Your task to perform on an android device: Go to privacy settings Image 0: 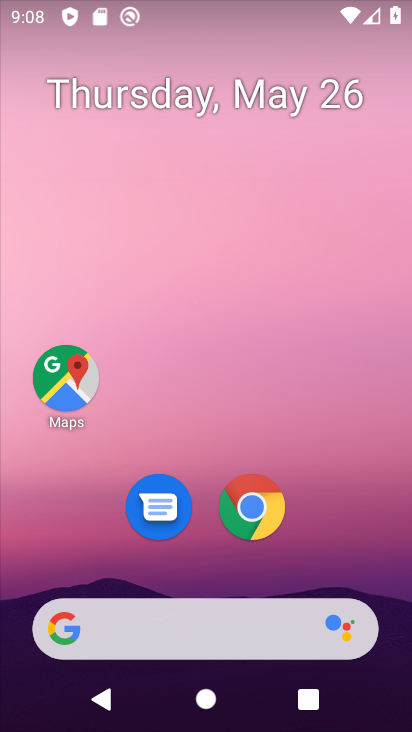
Step 0: drag from (391, 596) to (386, 216)
Your task to perform on an android device: Go to privacy settings Image 1: 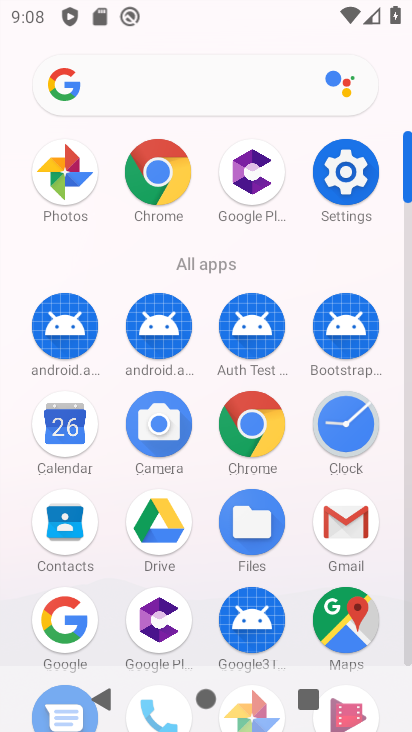
Step 1: click (343, 169)
Your task to perform on an android device: Go to privacy settings Image 2: 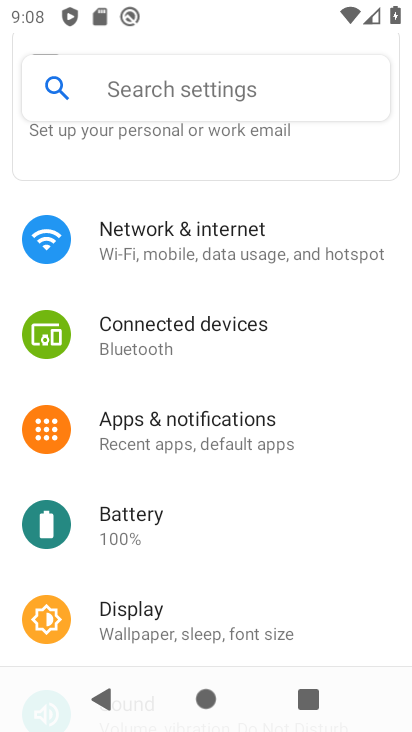
Step 2: drag from (374, 511) to (350, 359)
Your task to perform on an android device: Go to privacy settings Image 3: 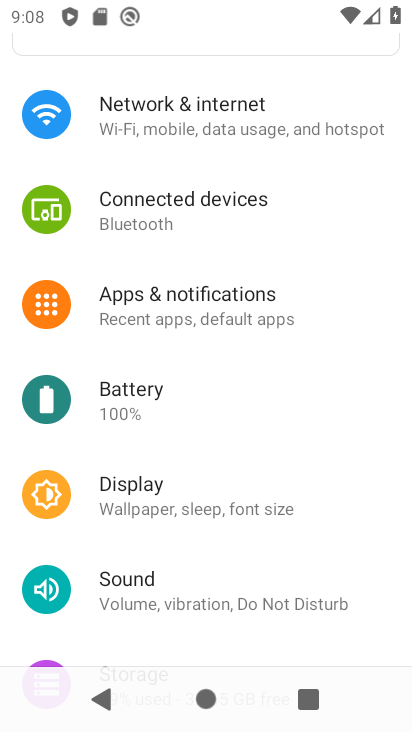
Step 3: drag from (369, 508) to (361, 362)
Your task to perform on an android device: Go to privacy settings Image 4: 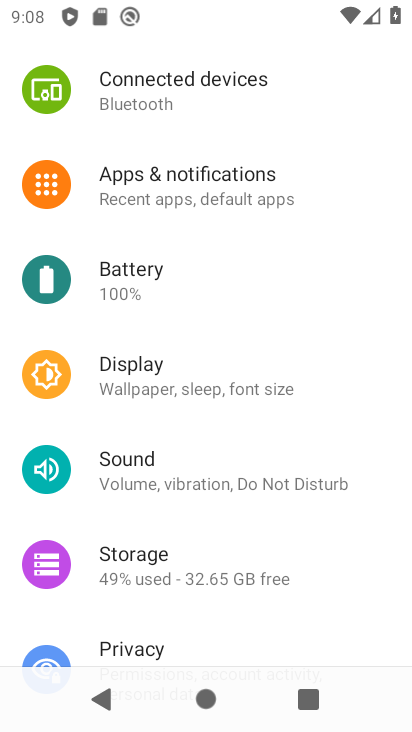
Step 4: drag from (356, 590) to (352, 434)
Your task to perform on an android device: Go to privacy settings Image 5: 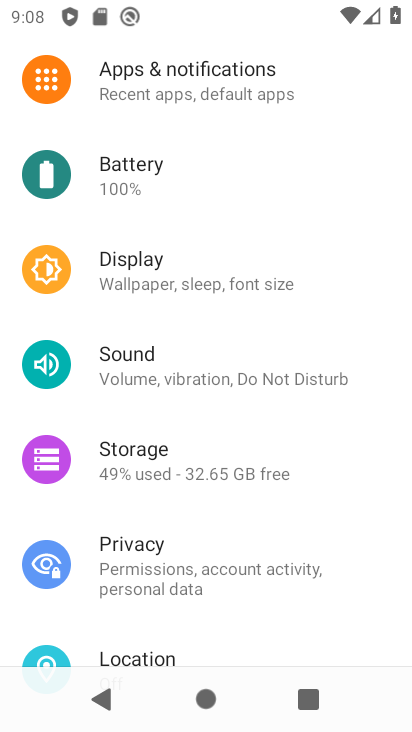
Step 5: drag from (359, 574) to (364, 432)
Your task to perform on an android device: Go to privacy settings Image 6: 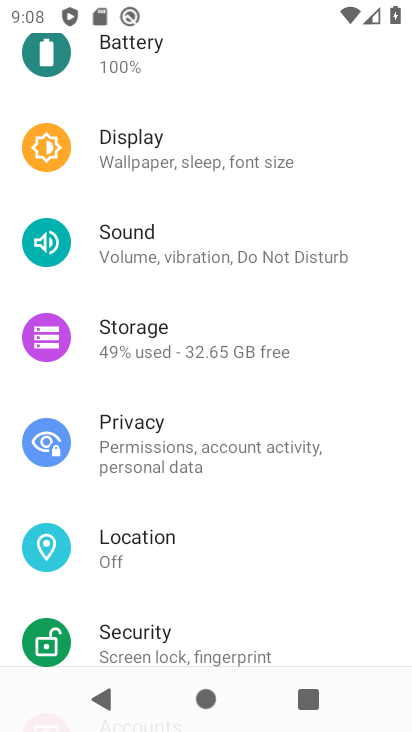
Step 6: drag from (372, 557) to (372, 432)
Your task to perform on an android device: Go to privacy settings Image 7: 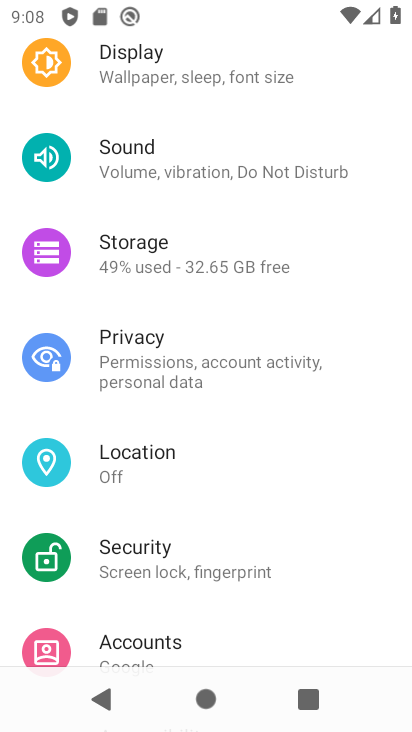
Step 7: drag from (371, 571) to (370, 411)
Your task to perform on an android device: Go to privacy settings Image 8: 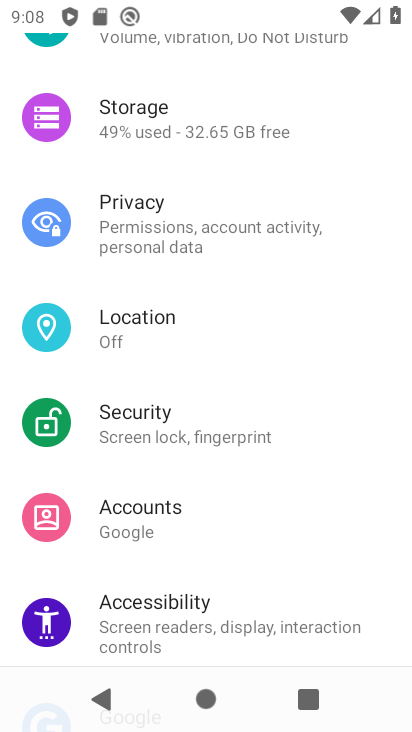
Step 8: drag from (365, 546) to (357, 368)
Your task to perform on an android device: Go to privacy settings Image 9: 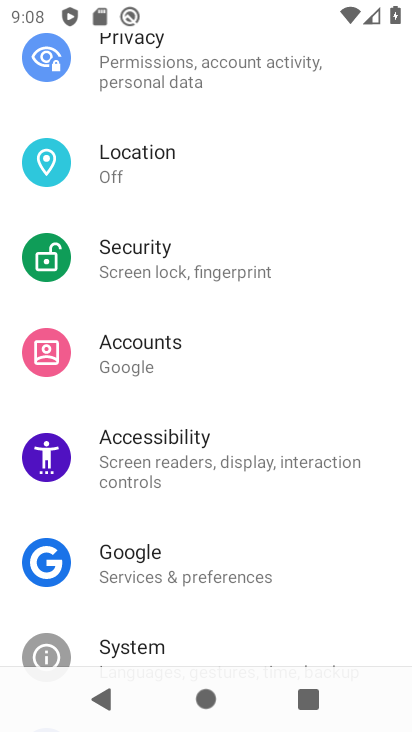
Step 9: drag from (351, 585) to (348, 470)
Your task to perform on an android device: Go to privacy settings Image 10: 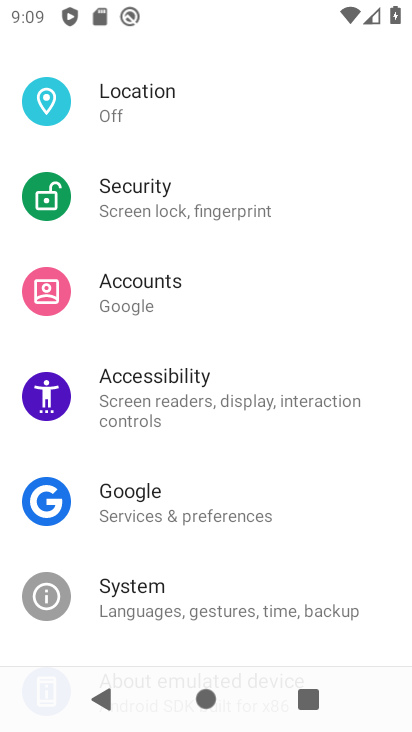
Step 10: drag from (339, 288) to (345, 458)
Your task to perform on an android device: Go to privacy settings Image 11: 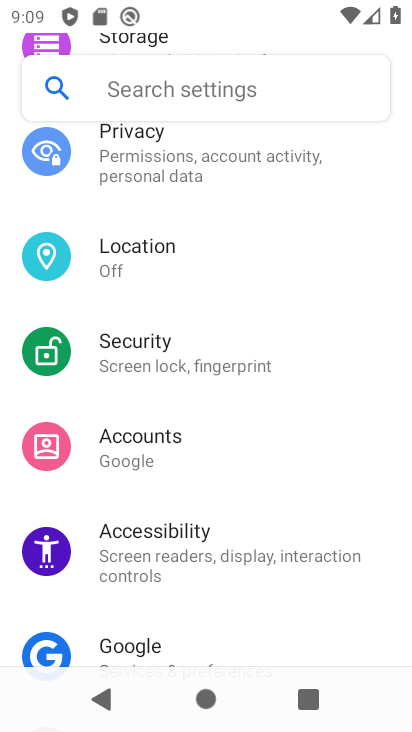
Step 11: drag from (333, 352) to (349, 473)
Your task to perform on an android device: Go to privacy settings Image 12: 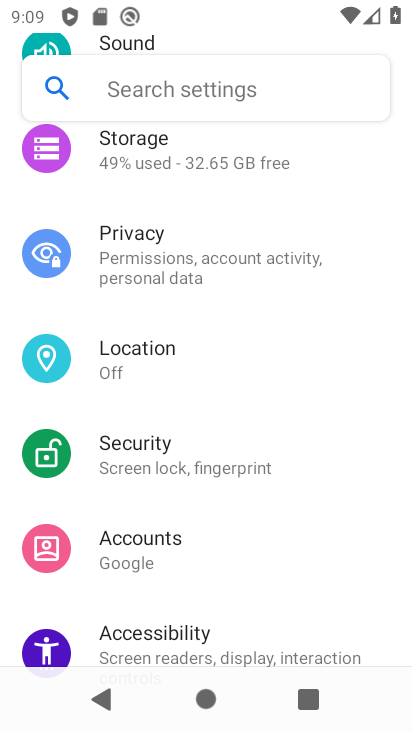
Step 12: drag from (334, 324) to (340, 461)
Your task to perform on an android device: Go to privacy settings Image 13: 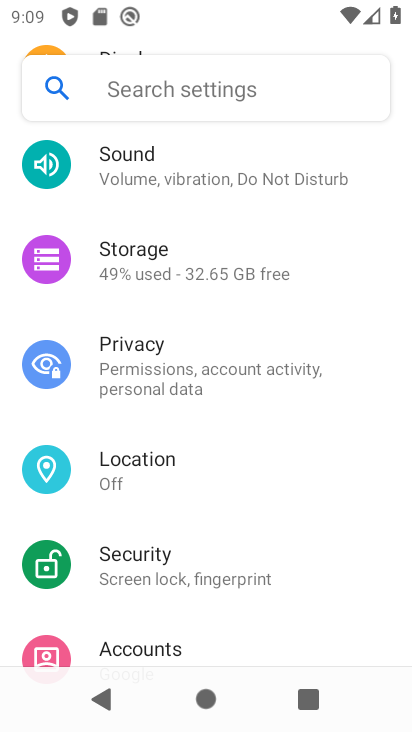
Step 13: drag from (341, 345) to (351, 471)
Your task to perform on an android device: Go to privacy settings Image 14: 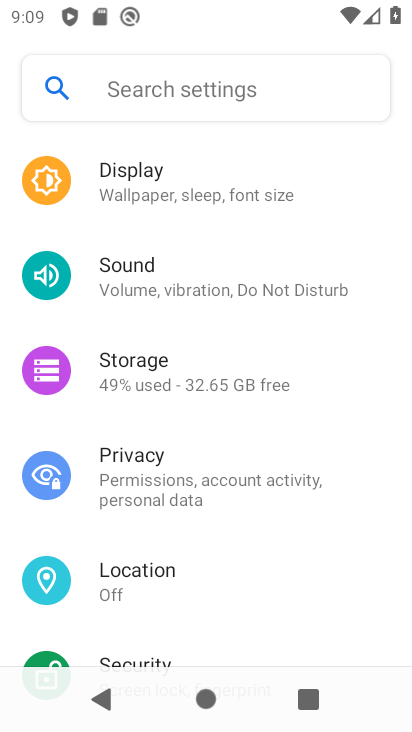
Step 14: click (267, 505)
Your task to perform on an android device: Go to privacy settings Image 15: 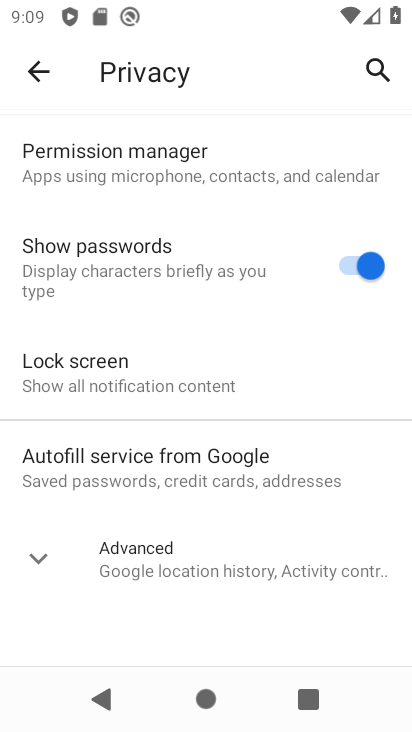
Step 15: task complete